Your task to perform on an android device: clear history in the chrome app Image 0: 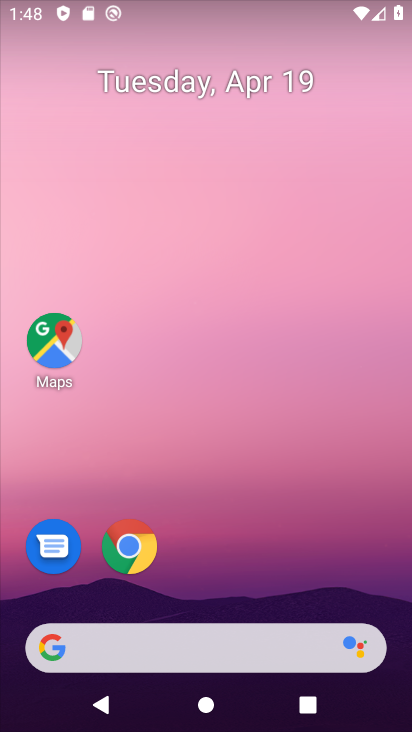
Step 0: click (139, 559)
Your task to perform on an android device: clear history in the chrome app Image 1: 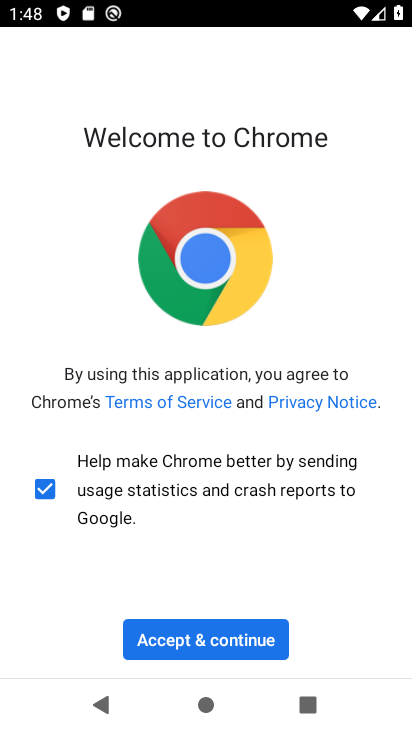
Step 1: click (213, 632)
Your task to perform on an android device: clear history in the chrome app Image 2: 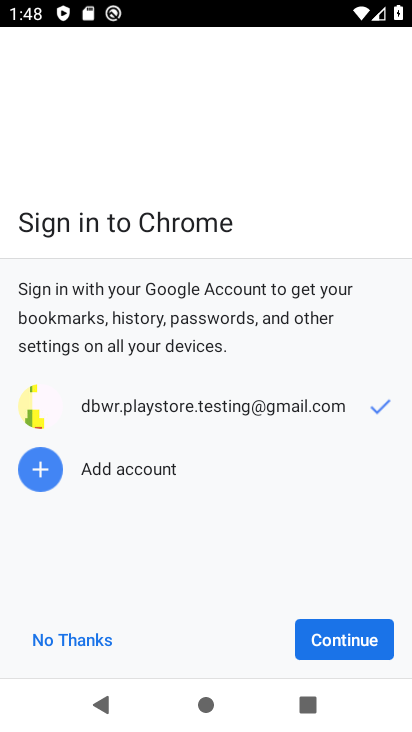
Step 2: click (322, 639)
Your task to perform on an android device: clear history in the chrome app Image 3: 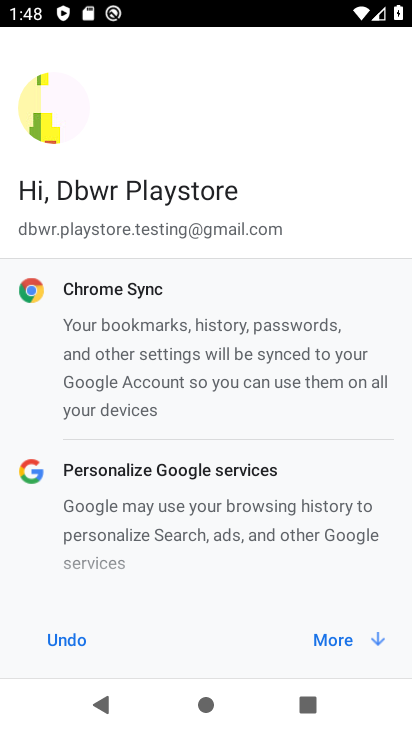
Step 3: click (322, 639)
Your task to perform on an android device: clear history in the chrome app Image 4: 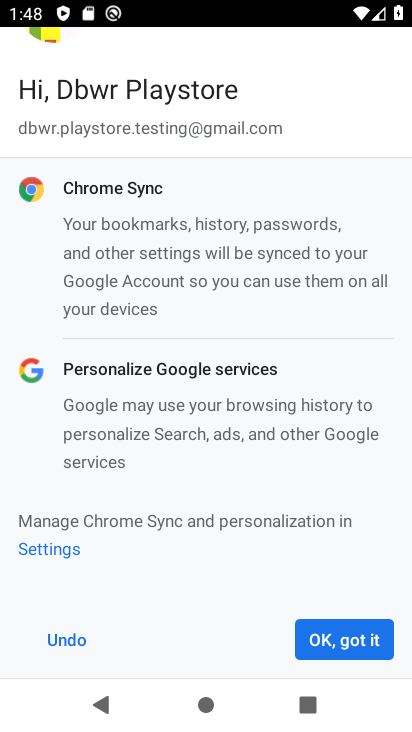
Step 4: click (322, 639)
Your task to perform on an android device: clear history in the chrome app Image 5: 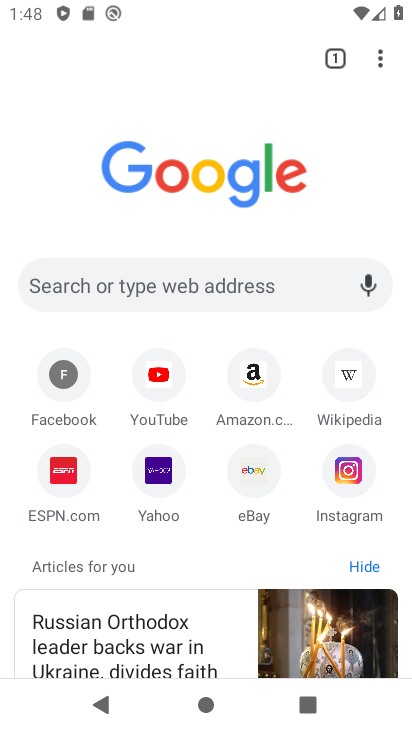
Step 5: task complete